Your task to perform on an android device: Go to CNN.com Image 0: 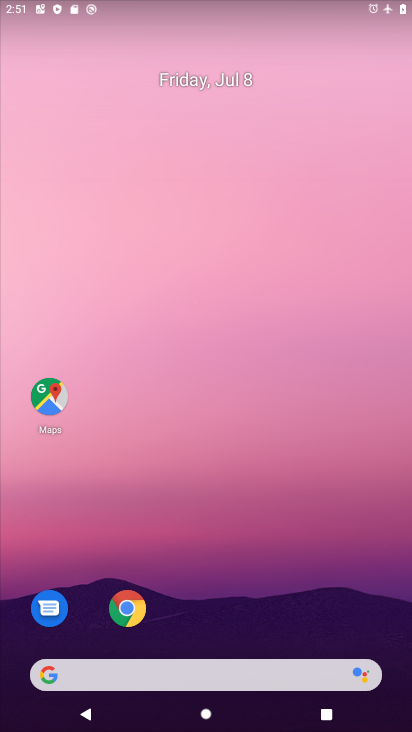
Step 0: drag from (309, 670) to (322, 9)
Your task to perform on an android device: Go to CNN.com Image 1: 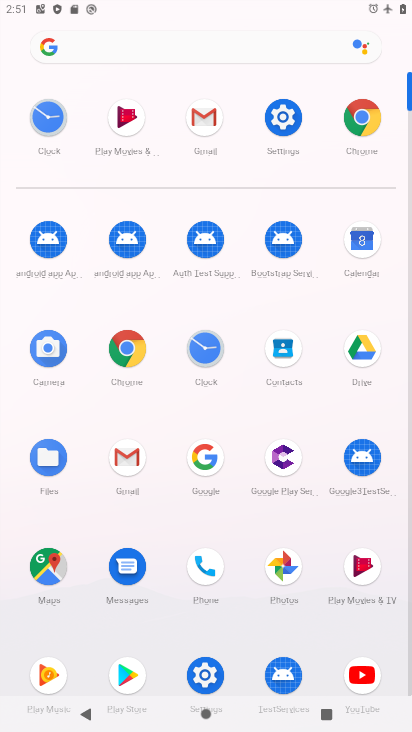
Step 1: click (128, 355)
Your task to perform on an android device: Go to CNN.com Image 2: 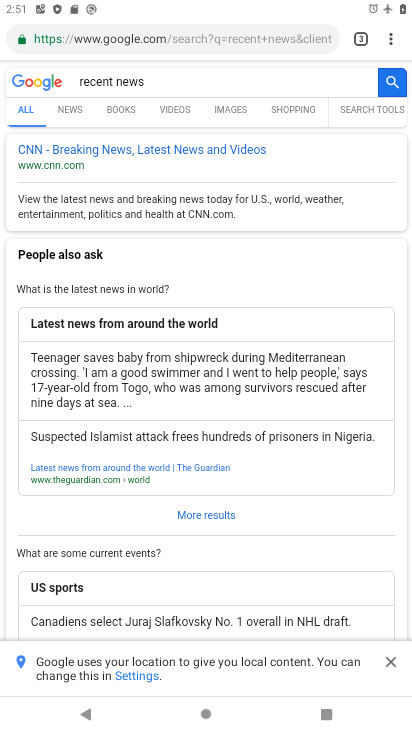
Step 2: click (191, 35)
Your task to perform on an android device: Go to CNN.com Image 3: 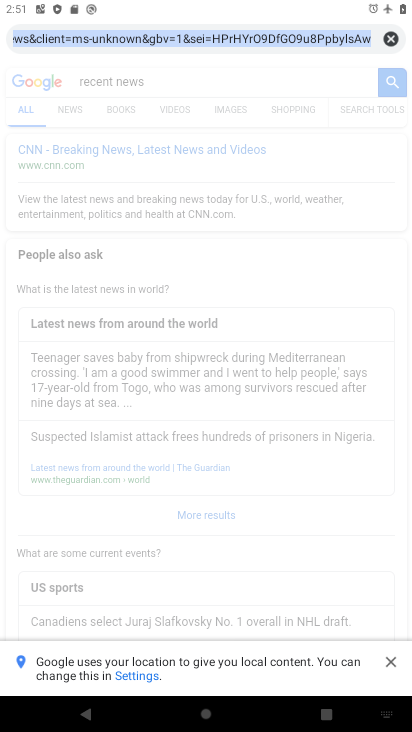
Step 3: type "cnn.com"
Your task to perform on an android device: Go to CNN.com Image 4: 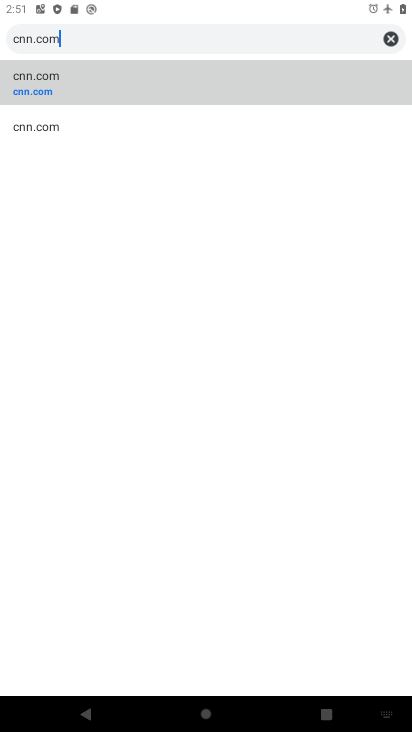
Step 4: click (201, 97)
Your task to perform on an android device: Go to CNN.com Image 5: 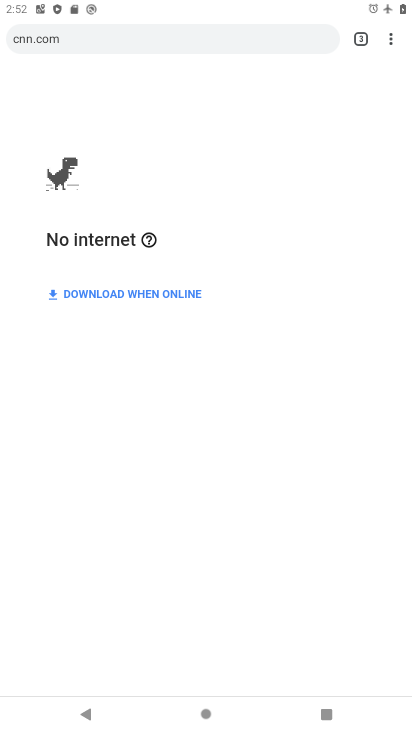
Step 5: task complete